Your task to perform on an android device: Is it going to rain this weekend? Image 0: 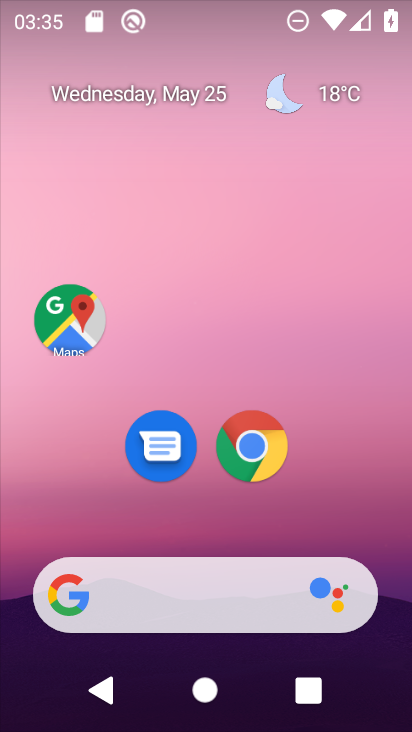
Step 0: click (306, 118)
Your task to perform on an android device: Is it going to rain this weekend? Image 1: 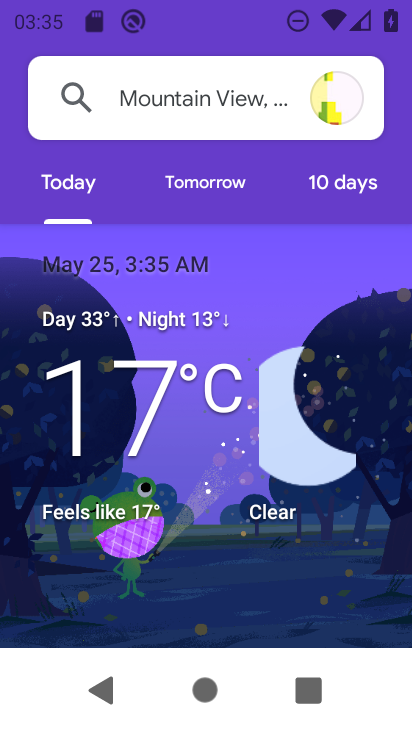
Step 1: click (315, 186)
Your task to perform on an android device: Is it going to rain this weekend? Image 2: 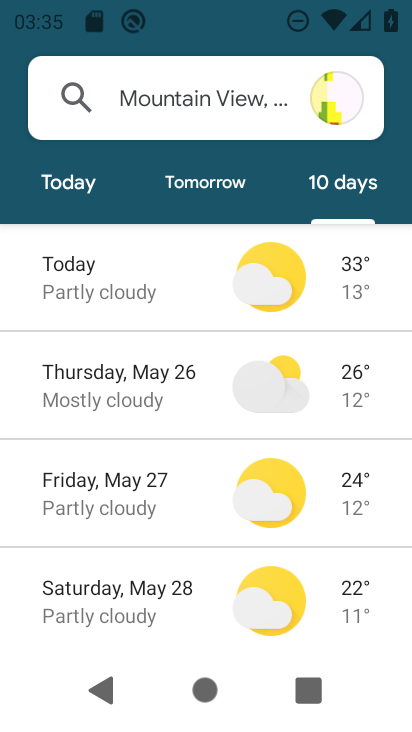
Step 2: task complete